Your task to perform on an android device: Go to privacy settings Image 0: 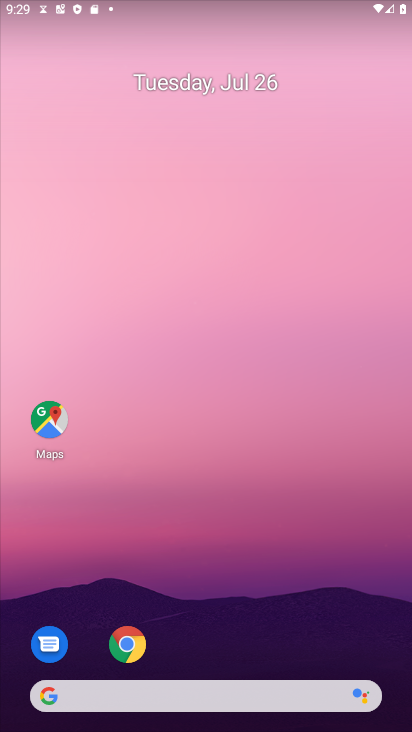
Step 0: click (136, 646)
Your task to perform on an android device: Go to privacy settings Image 1: 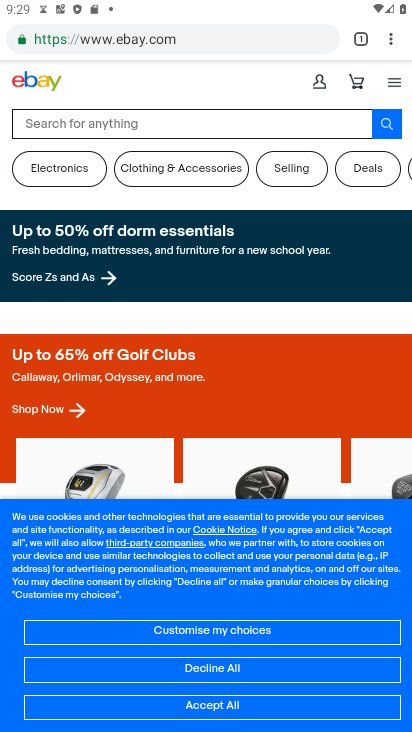
Step 1: press home button
Your task to perform on an android device: Go to privacy settings Image 2: 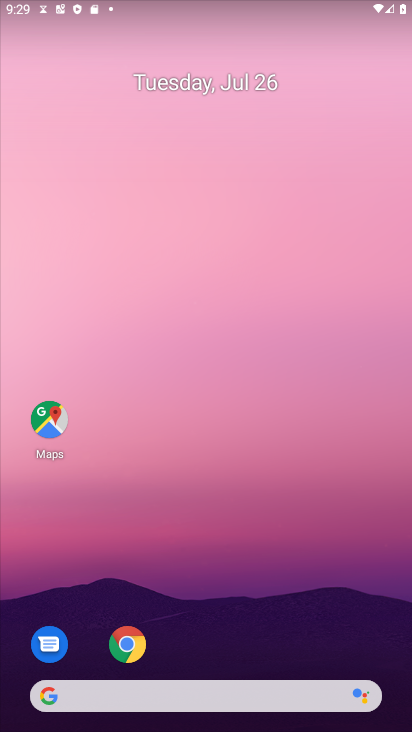
Step 2: drag from (222, 625) to (237, 21)
Your task to perform on an android device: Go to privacy settings Image 3: 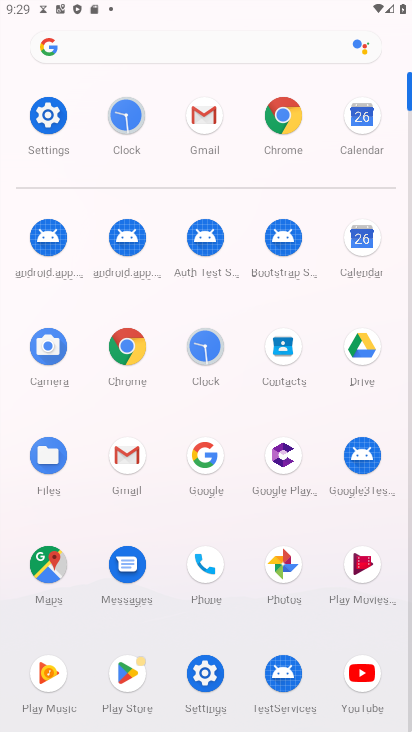
Step 3: click (215, 673)
Your task to perform on an android device: Go to privacy settings Image 4: 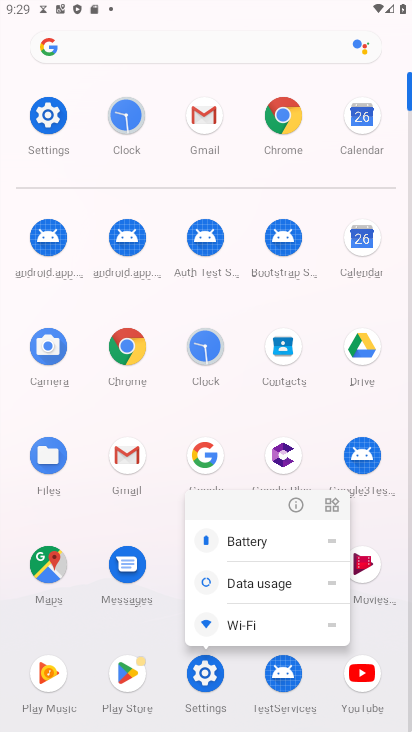
Step 4: click (204, 679)
Your task to perform on an android device: Go to privacy settings Image 5: 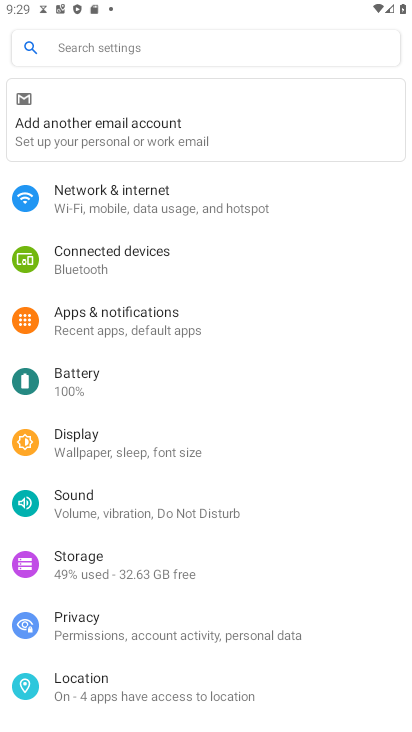
Step 5: click (122, 630)
Your task to perform on an android device: Go to privacy settings Image 6: 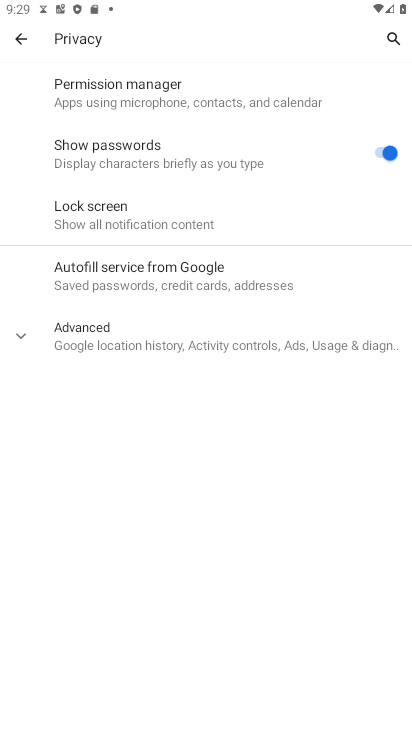
Step 6: task complete